Your task to perform on an android device: Open calendar and show me the third week of next month Image 0: 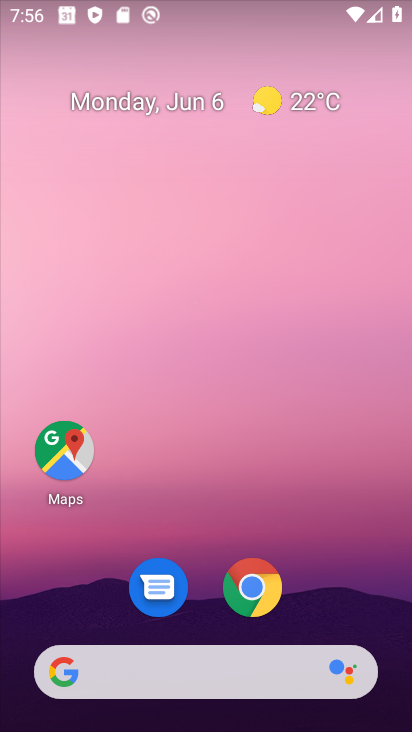
Step 0: drag from (270, 542) to (266, 408)
Your task to perform on an android device: Open calendar and show me the third week of next month Image 1: 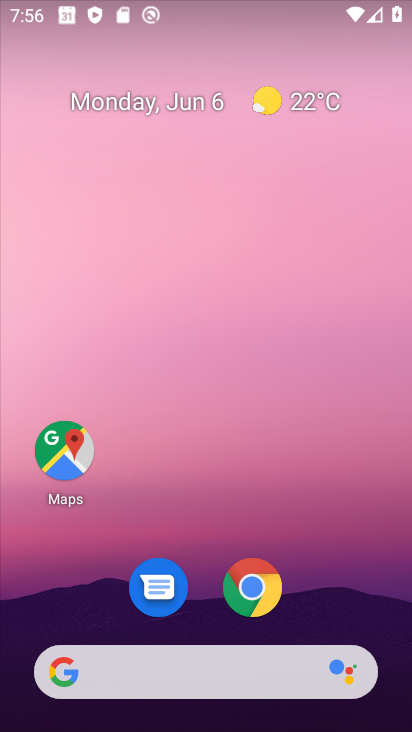
Step 1: drag from (211, 642) to (231, 403)
Your task to perform on an android device: Open calendar and show me the third week of next month Image 2: 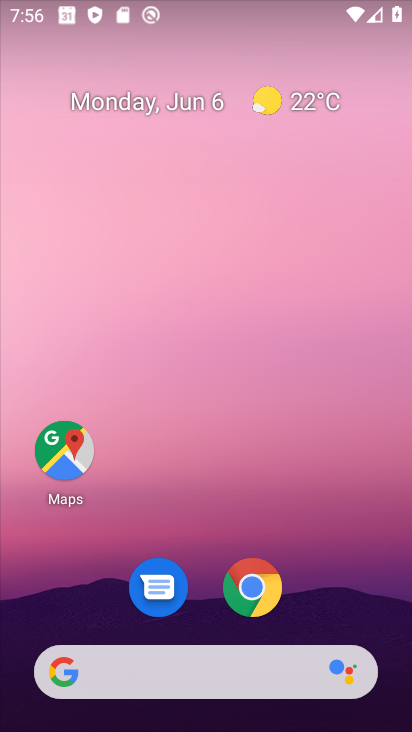
Step 2: drag from (168, 651) to (325, 29)
Your task to perform on an android device: Open calendar and show me the third week of next month Image 3: 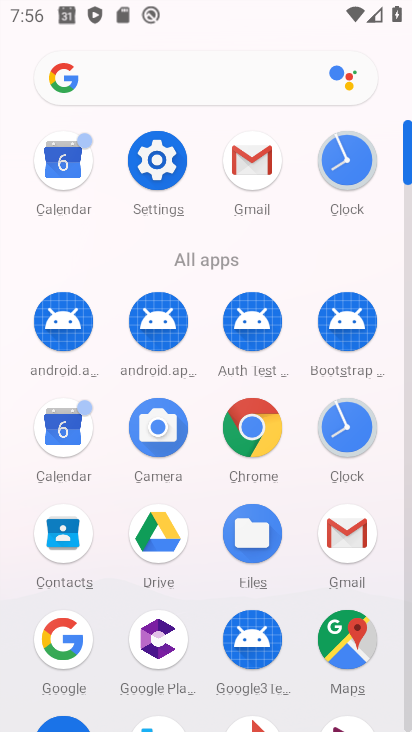
Step 3: click (63, 433)
Your task to perform on an android device: Open calendar and show me the third week of next month Image 4: 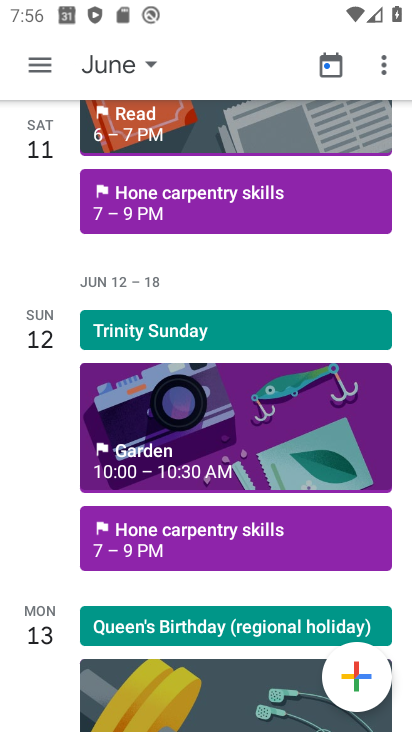
Step 4: click (127, 57)
Your task to perform on an android device: Open calendar and show me the third week of next month Image 5: 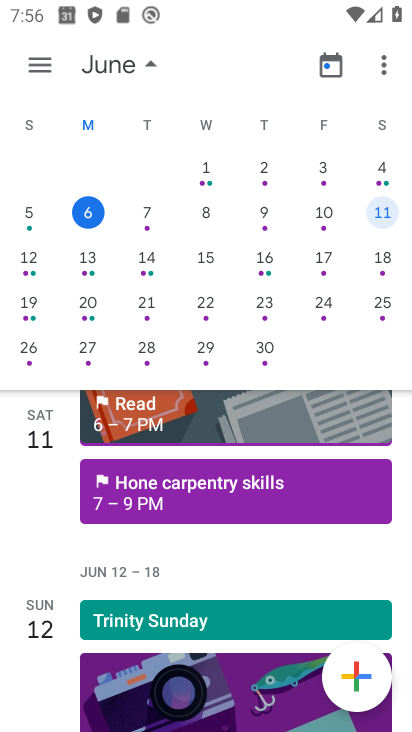
Step 5: drag from (357, 307) to (9, 295)
Your task to perform on an android device: Open calendar and show me the third week of next month Image 6: 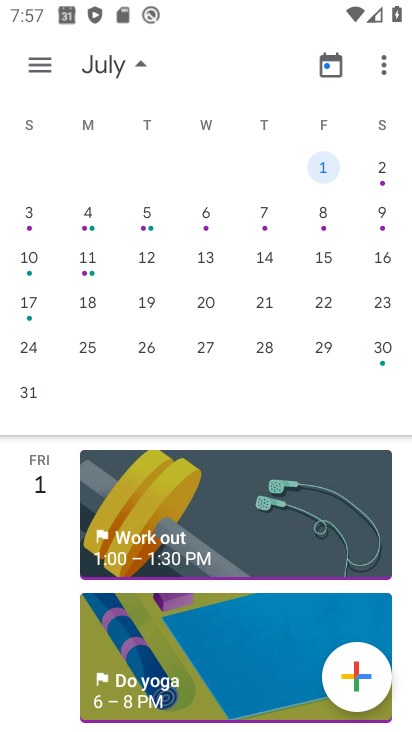
Step 6: click (27, 259)
Your task to perform on an android device: Open calendar and show me the third week of next month Image 7: 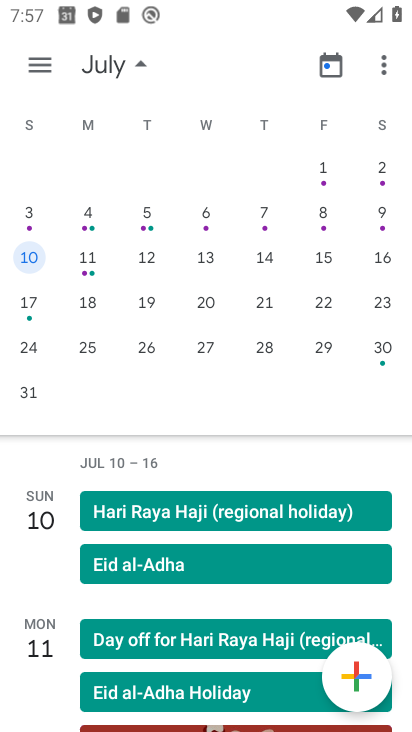
Step 7: task complete